Your task to perform on an android device: Open battery settings Image 0: 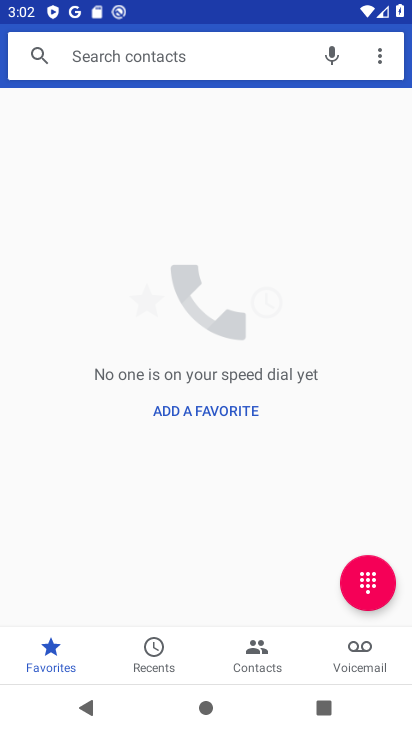
Step 0: press home button
Your task to perform on an android device: Open battery settings Image 1: 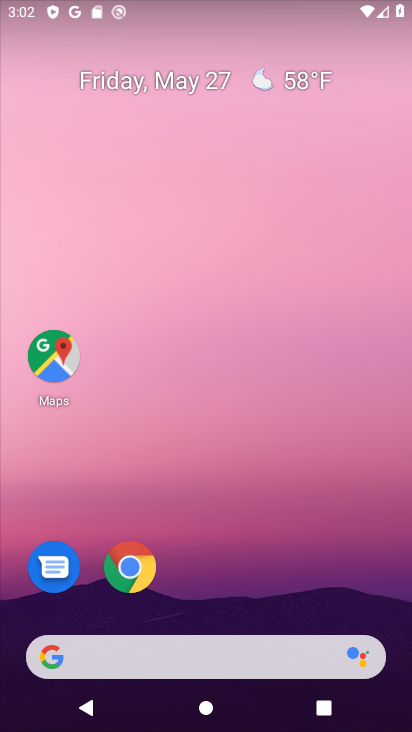
Step 1: drag from (225, 550) to (252, 48)
Your task to perform on an android device: Open battery settings Image 2: 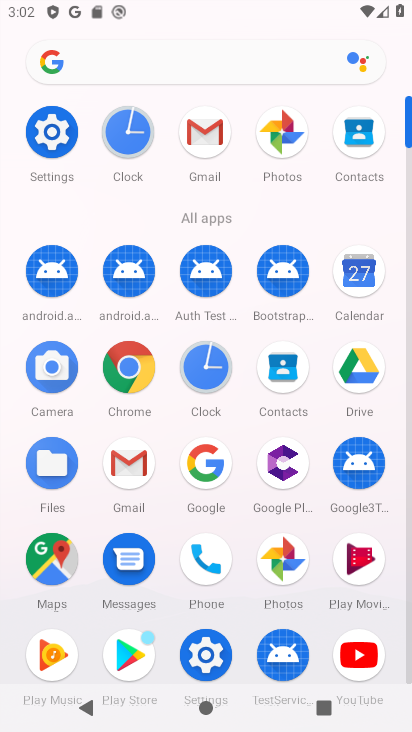
Step 2: click (47, 123)
Your task to perform on an android device: Open battery settings Image 3: 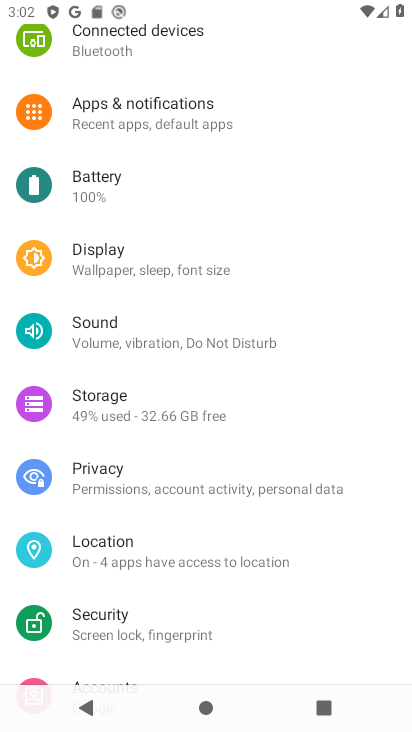
Step 3: click (137, 181)
Your task to perform on an android device: Open battery settings Image 4: 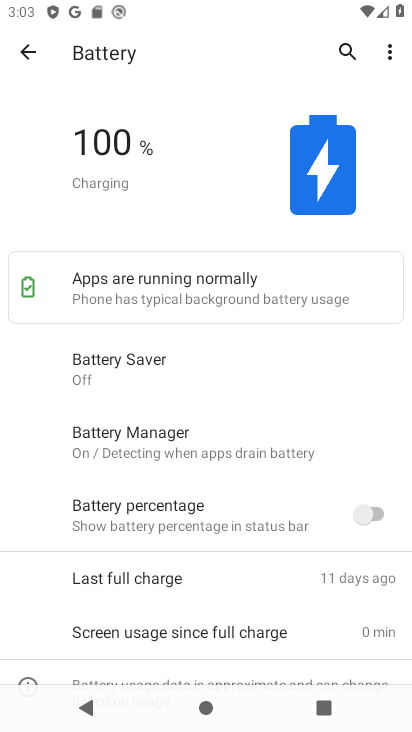
Step 4: task complete